Your task to perform on an android device: choose inbox layout in the gmail app Image 0: 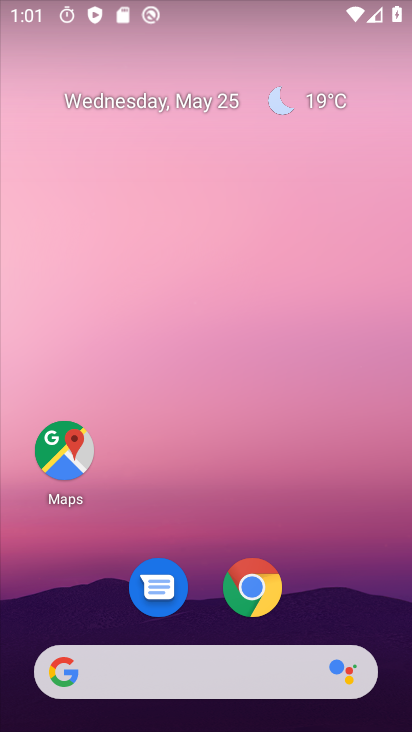
Step 0: drag from (192, 725) to (201, 102)
Your task to perform on an android device: choose inbox layout in the gmail app Image 1: 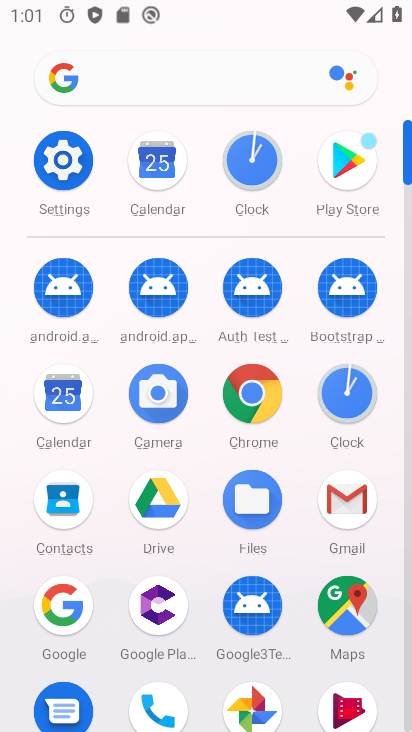
Step 1: click (348, 495)
Your task to perform on an android device: choose inbox layout in the gmail app Image 2: 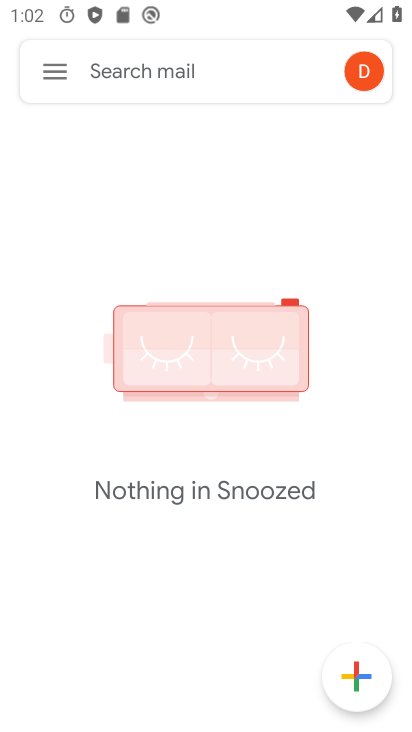
Step 2: click (55, 75)
Your task to perform on an android device: choose inbox layout in the gmail app Image 3: 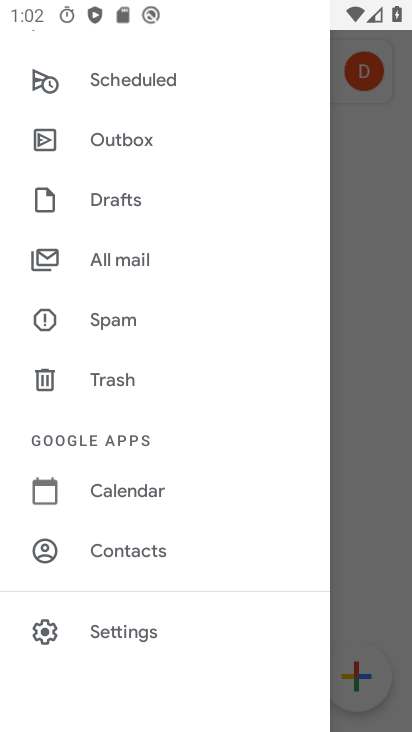
Step 3: click (129, 626)
Your task to perform on an android device: choose inbox layout in the gmail app Image 4: 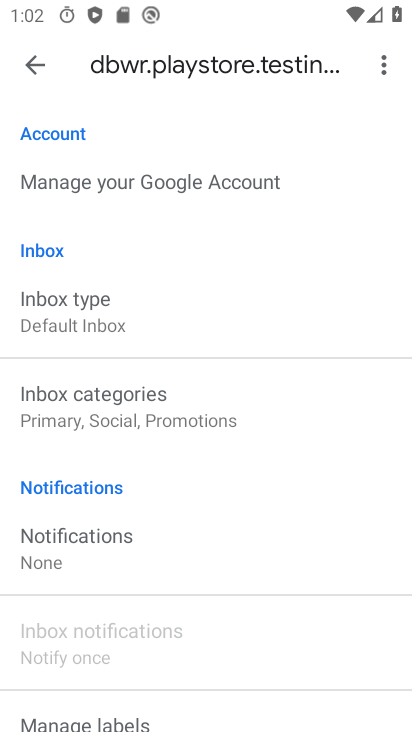
Step 4: click (112, 317)
Your task to perform on an android device: choose inbox layout in the gmail app Image 5: 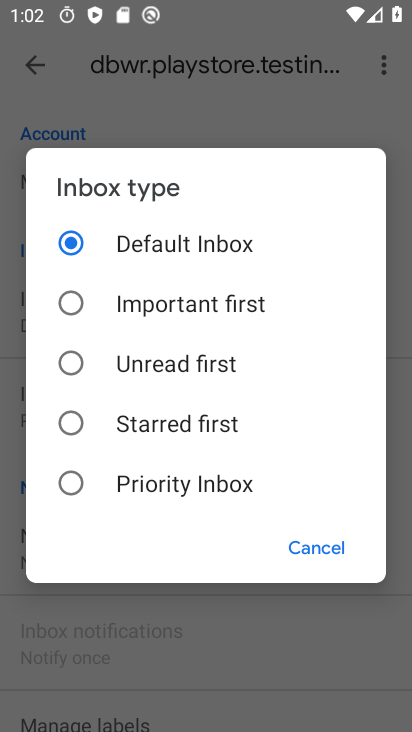
Step 5: click (73, 481)
Your task to perform on an android device: choose inbox layout in the gmail app Image 6: 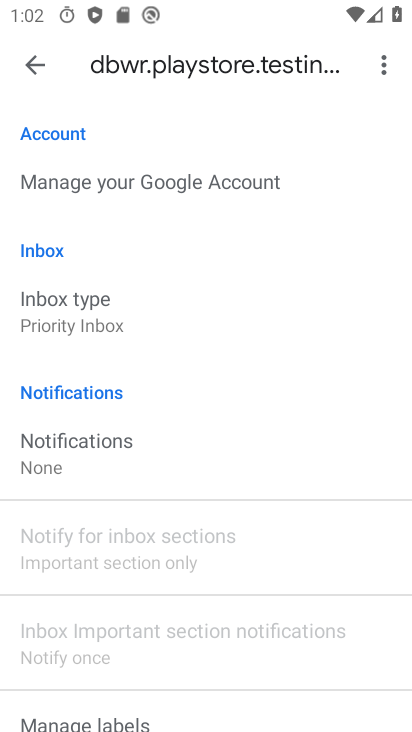
Step 6: task complete